Your task to perform on an android device: Open Yahoo.com Image 0: 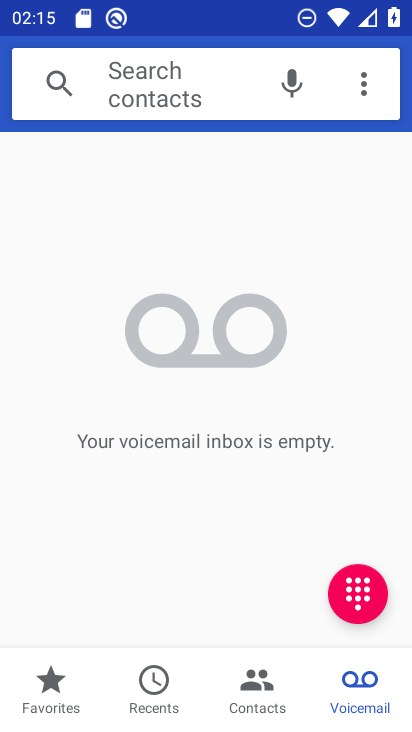
Step 0: press home button
Your task to perform on an android device: Open Yahoo.com Image 1: 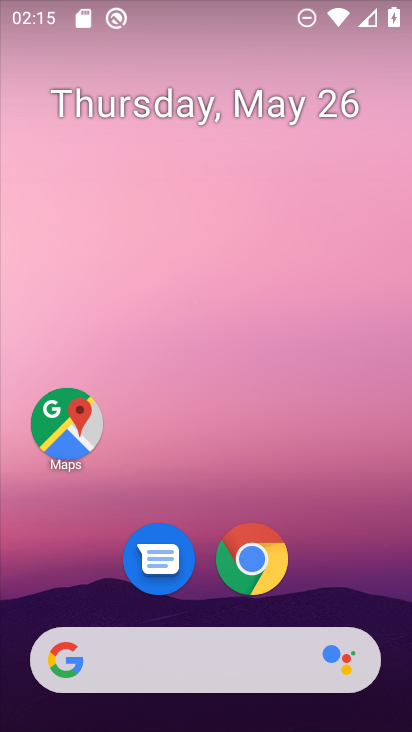
Step 1: drag from (199, 644) to (347, 150)
Your task to perform on an android device: Open Yahoo.com Image 2: 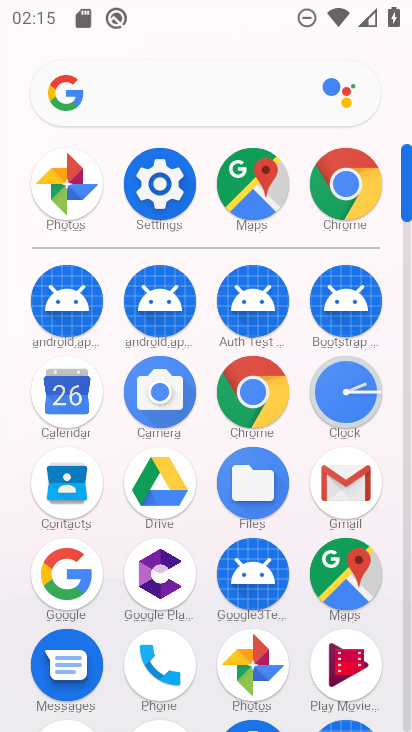
Step 2: click (256, 388)
Your task to perform on an android device: Open Yahoo.com Image 3: 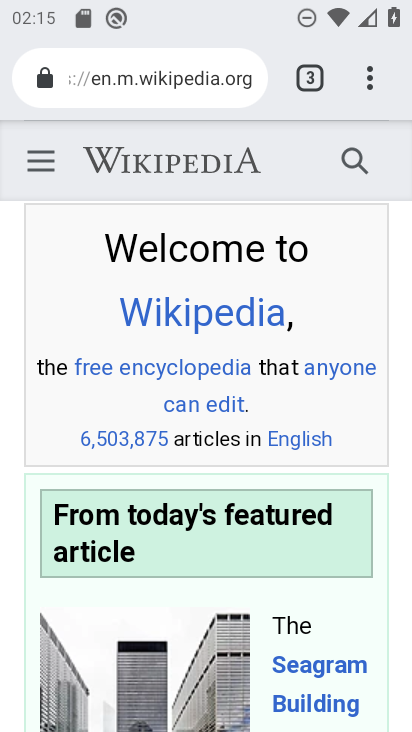
Step 3: drag from (369, 78) to (99, 150)
Your task to perform on an android device: Open Yahoo.com Image 4: 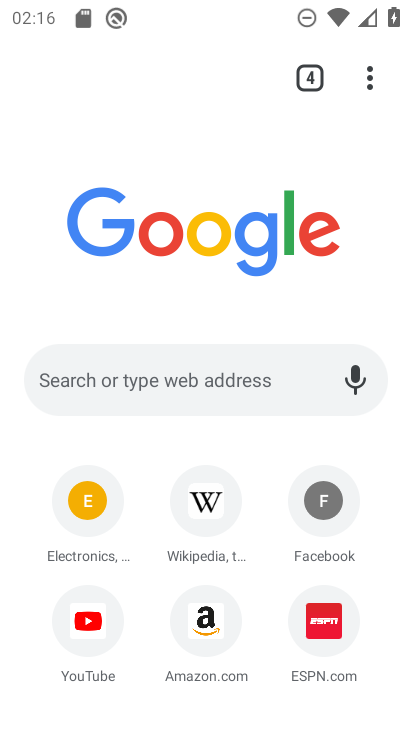
Step 4: drag from (291, 664) to (240, 524)
Your task to perform on an android device: Open Yahoo.com Image 5: 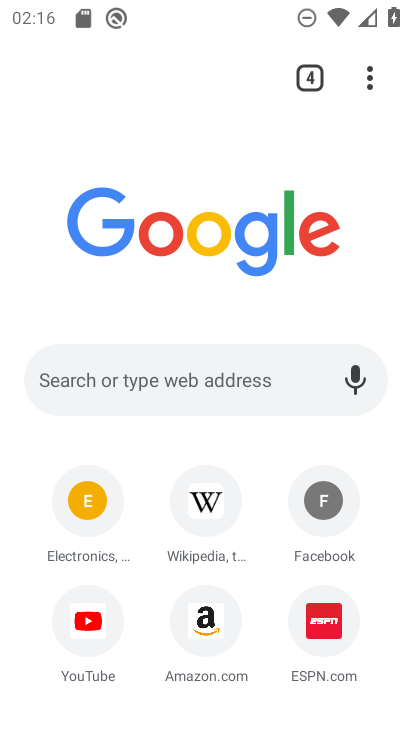
Step 5: click (122, 368)
Your task to perform on an android device: Open Yahoo.com Image 6: 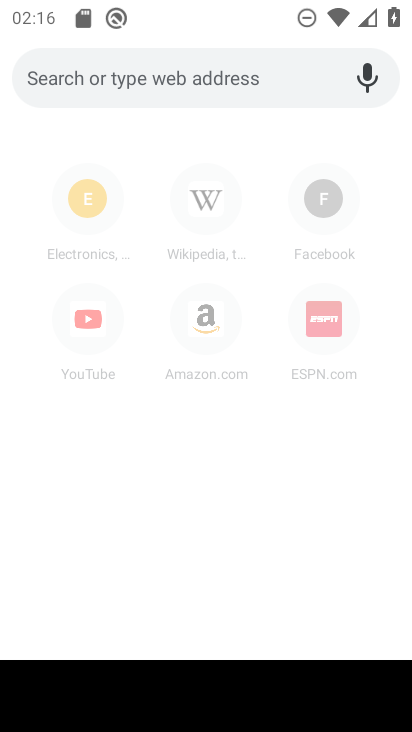
Step 6: type "yahoo.com"
Your task to perform on an android device: Open Yahoo.com Image 7: 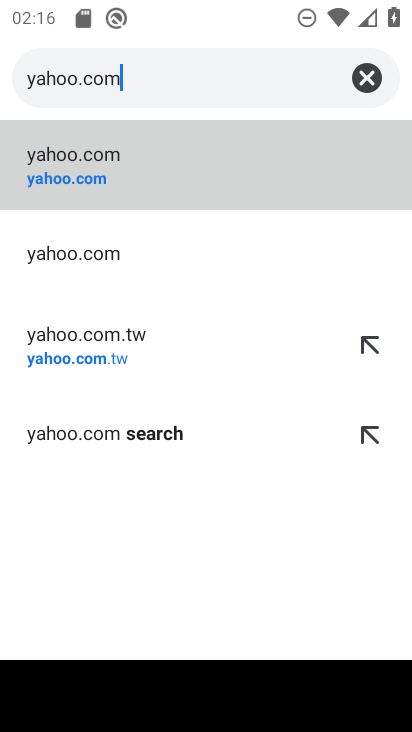
Step 7: click (120, 163)
Your task to perform on an android device: Open Yahoo.com Image 8: 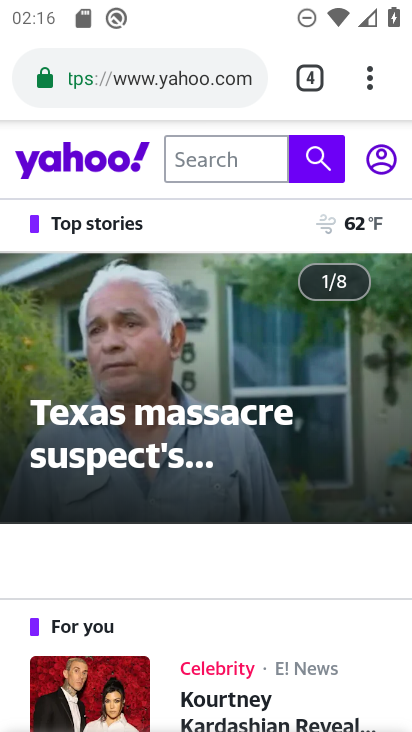
Step 8: task complete